Your task to perform on an android device: Do I have any events this weekend? Image 0: 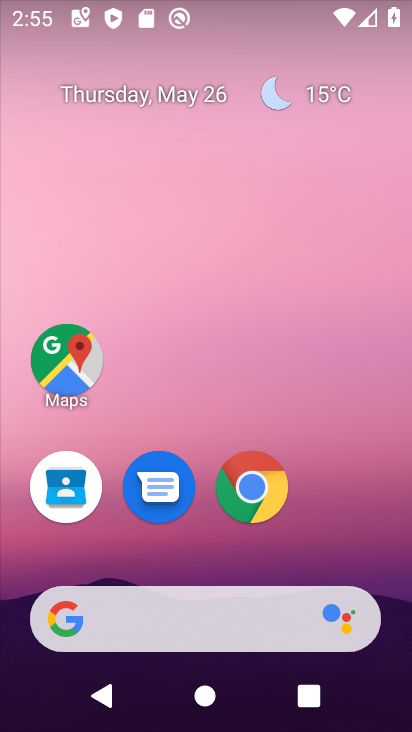
Step 0: drag from (202, 555) to (210, 180)
Your task to perform on an android device: Do I have any events this weekend? Image 1: 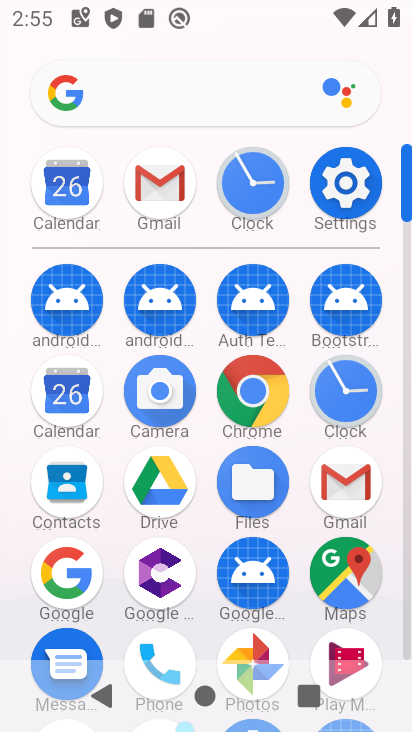
Step 1: click (80, 191)
Your task to perform on an android device: Do I have any events this weekend? Image 2: 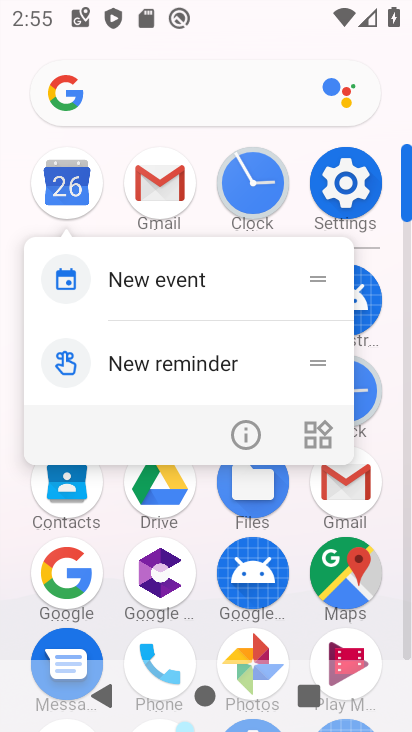
Step 2: click (80, 191)
Your task to perform on an android device: Do I have any events this weekend? Image 3: 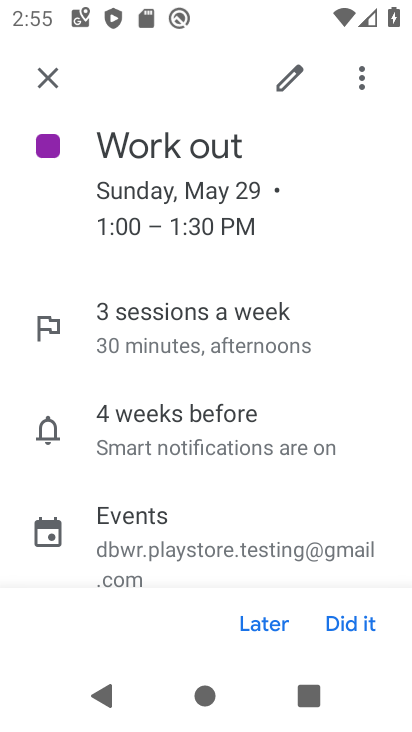
Step 3: click (55, 67)
Your task to perform on an android device: Do I have any events this weekend? Image 4: 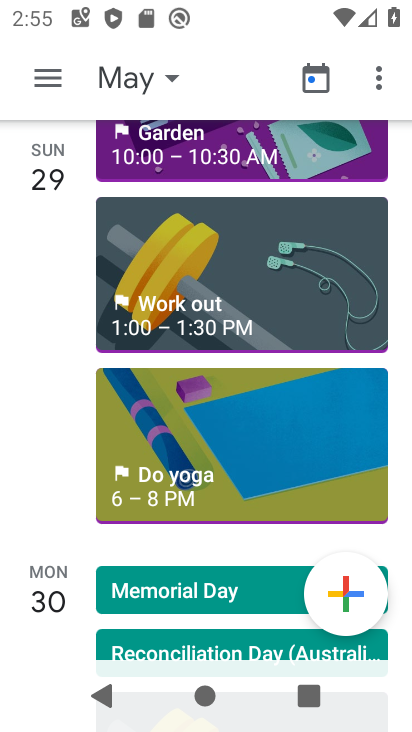
Step 4: click (166, 83)
Your task to perform on an android device: Do I have any events this weekend? Image 5: 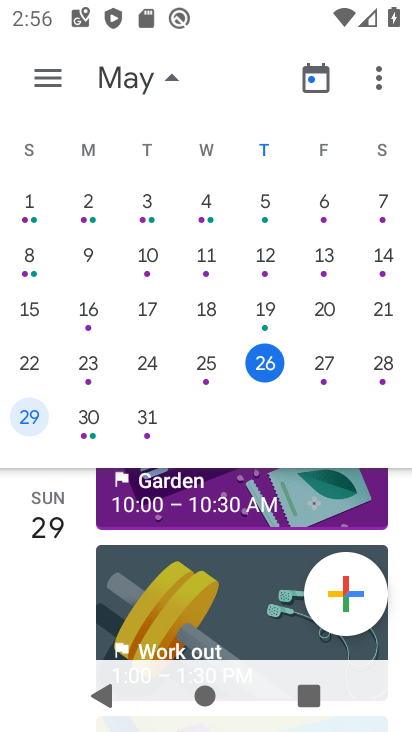
Step 5: task complete